Your task to perform on an android device: Play the last video I watched on Youtube Image 0: 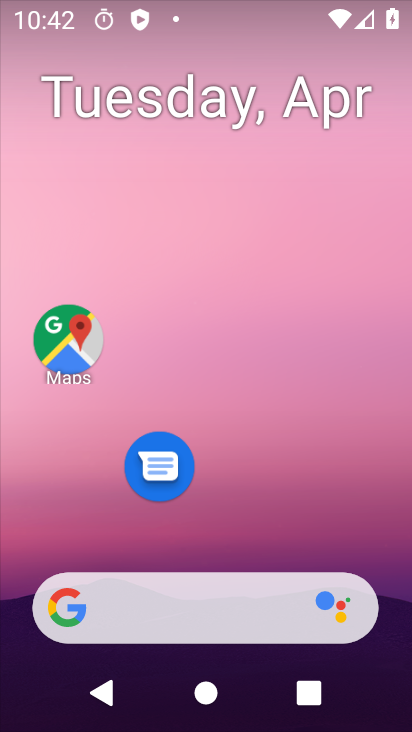
Step 0: click (271, 138)
Your task to perform on an android device: Play the last video I watched on Youtube Image 1: 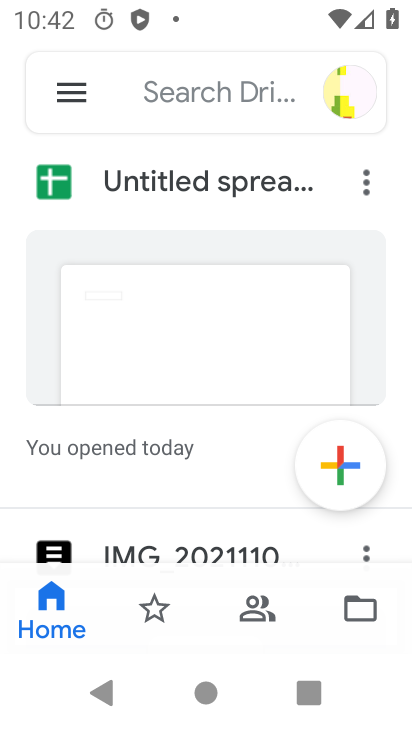
Step 1: press home button
Your task to perform on an android device: Play the last video I watched on Youtube Image 2: 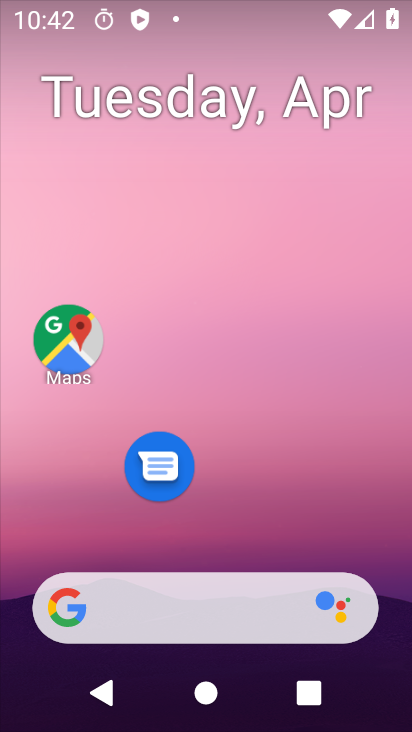
Step 2: drag from (313, 537) to (304, 60)
Your task to perform on an android device: Play the last video I watched on Youtube Image 3: 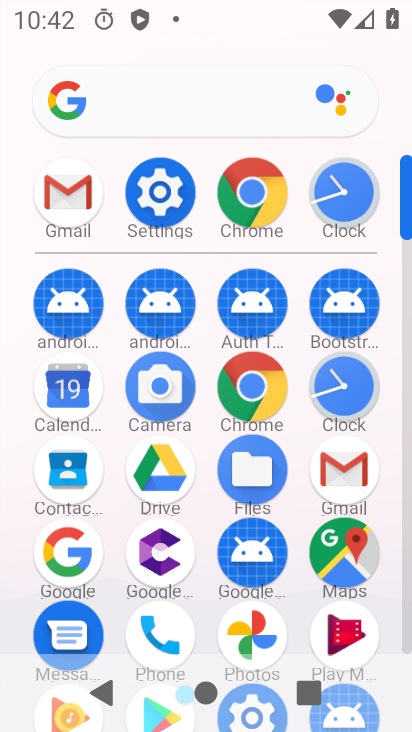
Step 3: click (406, 628)
Your task to perform on an android device: Play the last video I watched on Youtube Image 4: 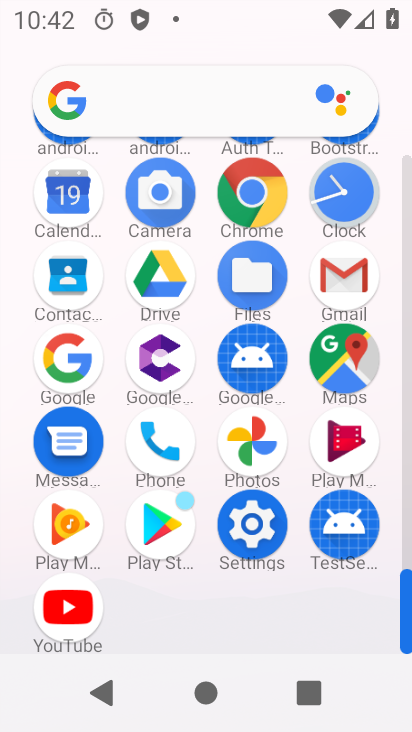
Step 4: click (80, 626)
Your task to perform on an android device: Play the last video I watched on Youtube Image 5: 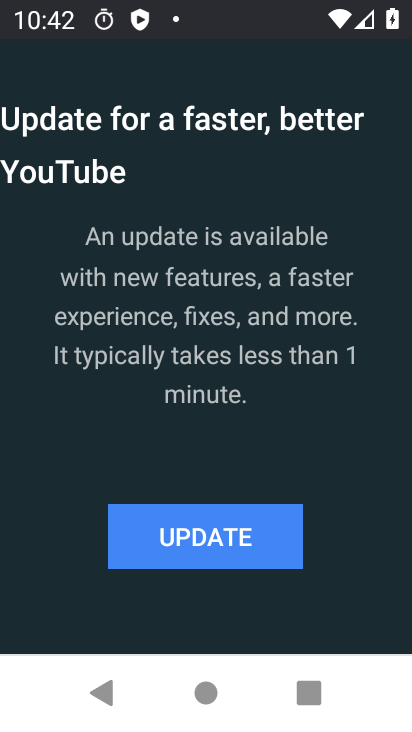
Step 5: click (222, 532)
Your task to perform on an android device: Play the last video I watched on Youtube Image 6: 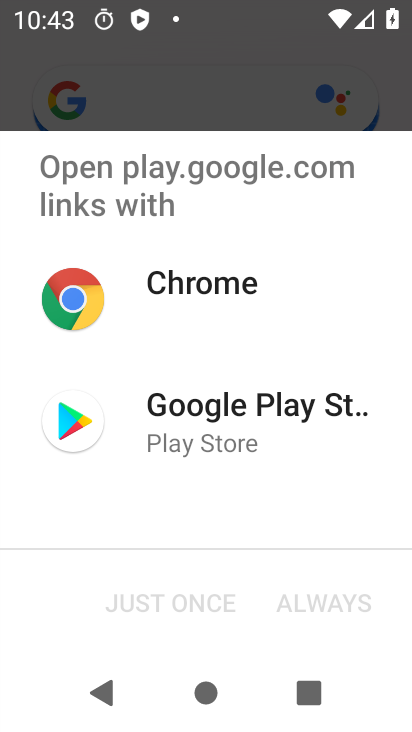
Step 6: click (237, 441)
Your task to perform on an android device: Play the last video I watched on Youtube Image 7: 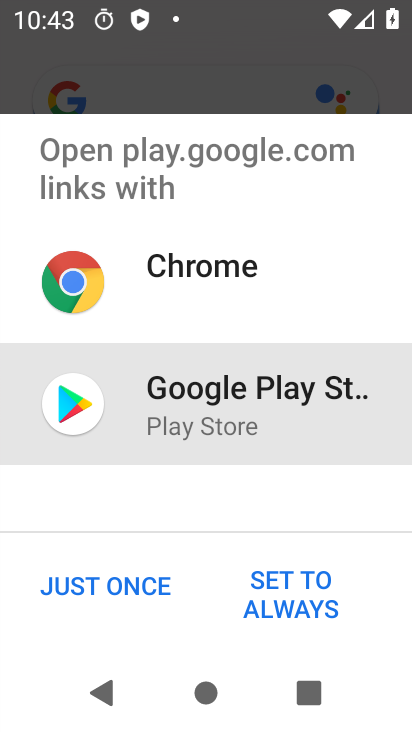
Step 7: click (136, 575)
Your task to perform on an android device: Play the last video I watched on Youtube Image 8: 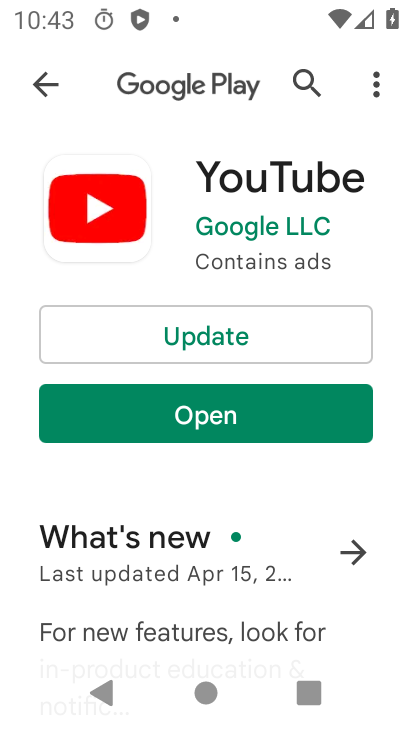
Step 8: click (273, 341)
Your task to perform on an android device: Play the last video I watched on Youtube Image 9: 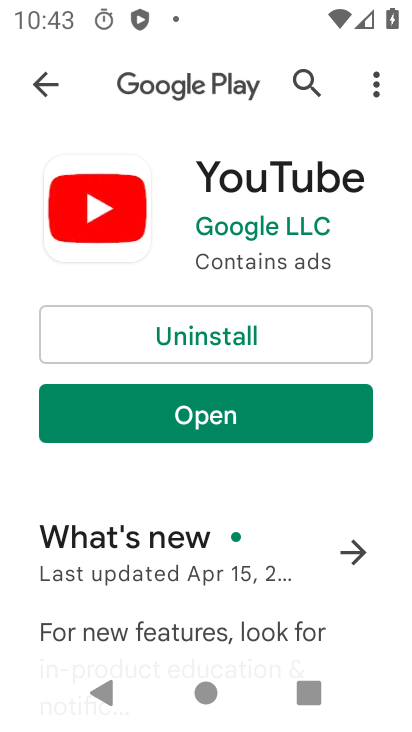
Step 9: click (185, 403)
Your task to perform on an android device: Play the last video I watched on Youtube Image 10: 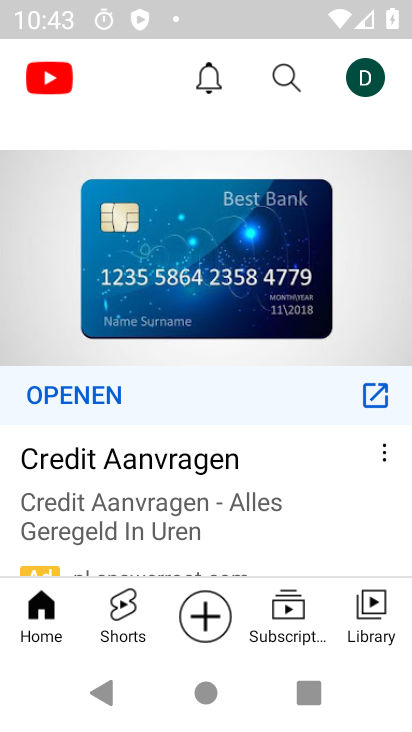
Step 10: click (363, 615)
Your task to perform on an android device: Play the last video I watched on Youtube Image 11: 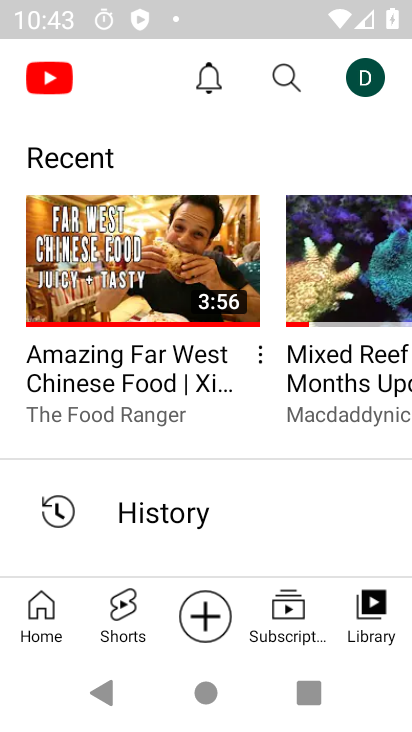
Step 11: task complete